Your task to perform on an android device: turn on showing notifications on the lock screen Image 0: 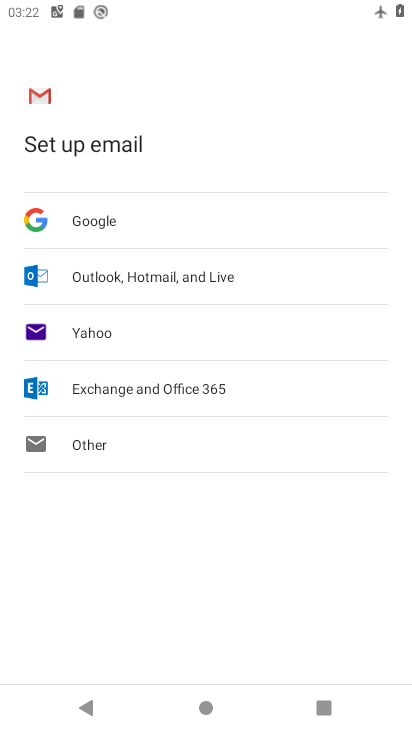
Step 0: press home button
Your task to perform on an android device: turn on showing notifications on the lock screen Image 1: 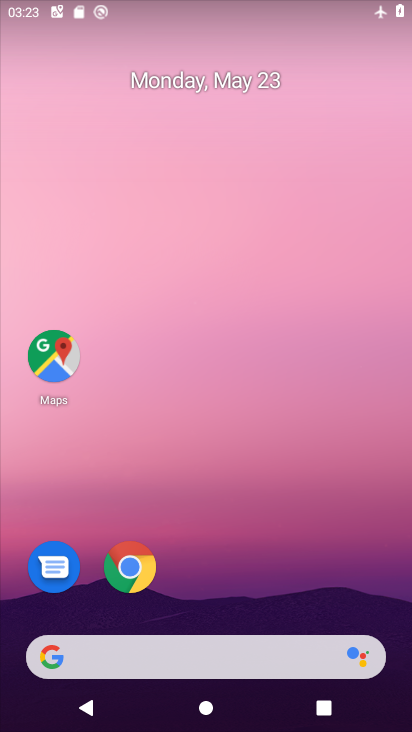
Step 1: drag from (11, 641) to (117, 433)
Your task to perform on an android device: turn on showing notifications on the lock screen Image 2: 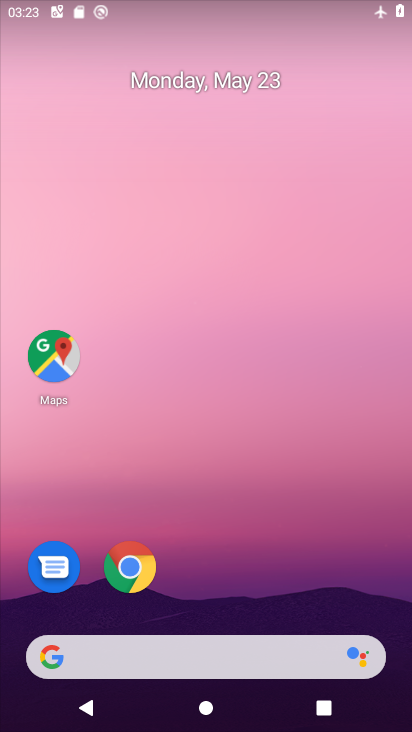
Step 2: drag from (16, 532) to (138, 327)
Your task to perform on an android device: turn on showing notifications on the lock screen Image 3: 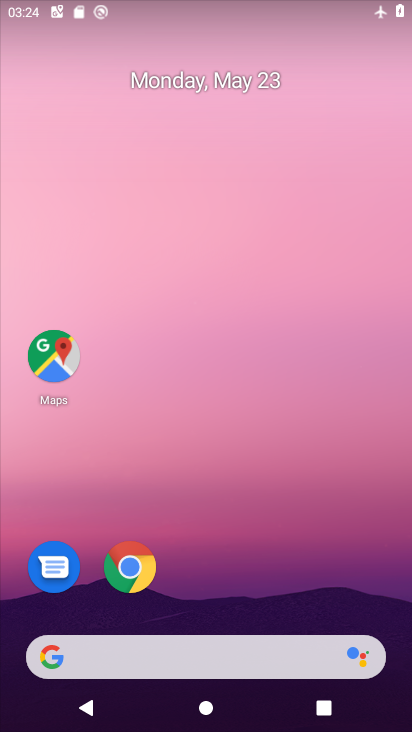
Step 3: drag from (193, 186) to (277, 85)
Your task to perform on an android device: turn on showing notifications on the lock screen Image 4: 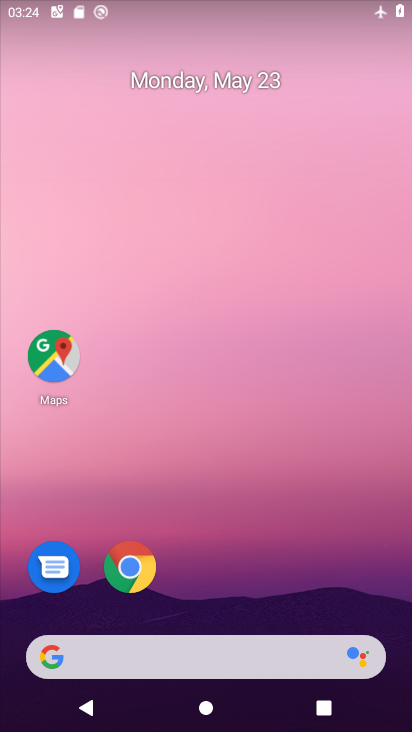
Step 4: drag from (13, 520) to (235, 0)
Your task to perform on an android device: turn on showing notifications on the lock screen Image 5: 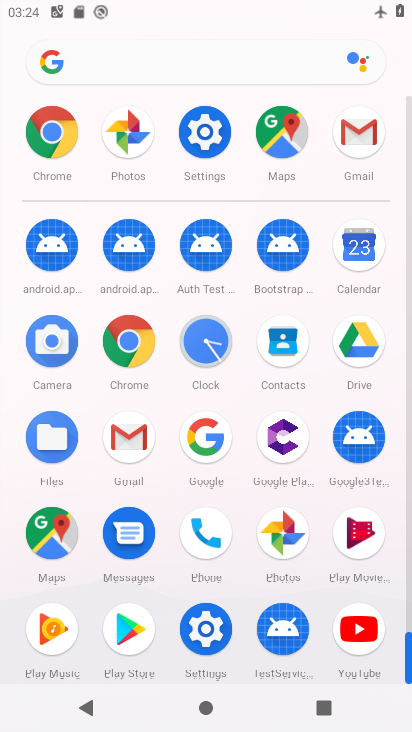
Step 5: click (200, 638)
Your task to perform on an android device: turn on showing notifications on the lock screen Image 6: 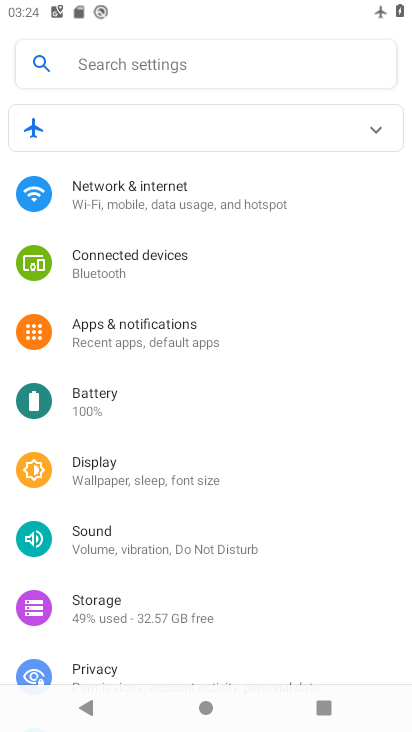
Step 6: click (144, 307)
Your task to perform on an android device: turn on showing notifications on the lock screen Image 7: 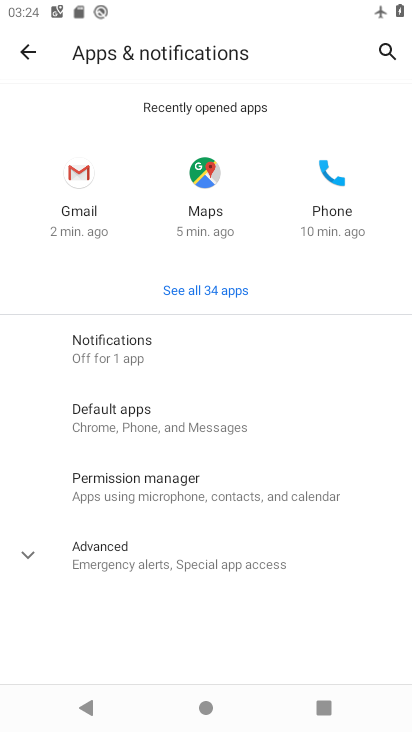
Step 7: click (160, 360)
Your task to perform on an android device: turn on showing notifications on the lock screen Image 8: 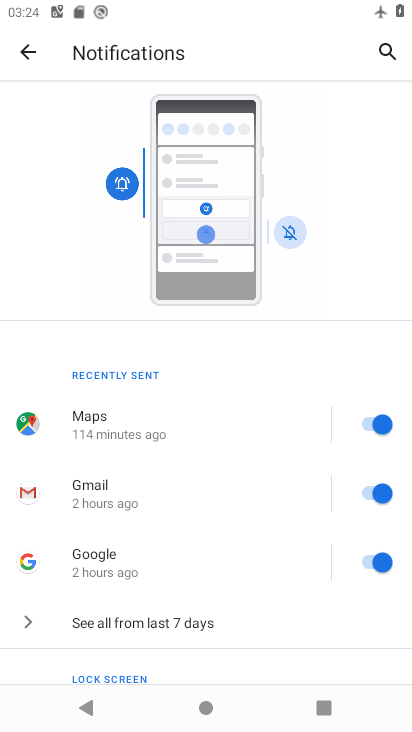
Step 8: drag from (97, 653) to (356, 129)
Your task to perform on an android device: turn on showing notifications on the lock screen Image 9: 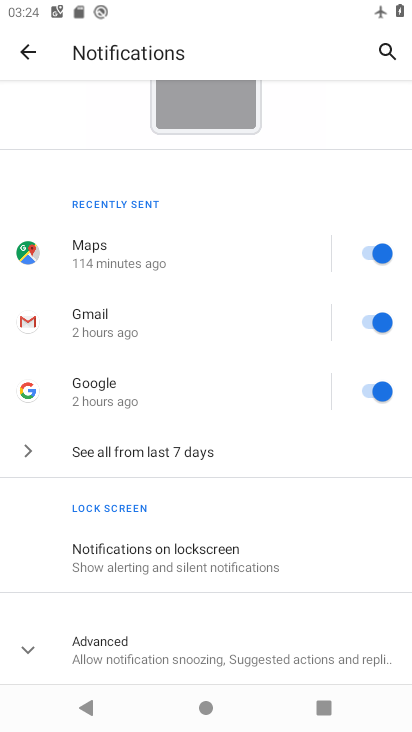
Step 9: click (107, 561)
Your task to perform on an android device: turn on showing notifications on the lock screen Image 10: 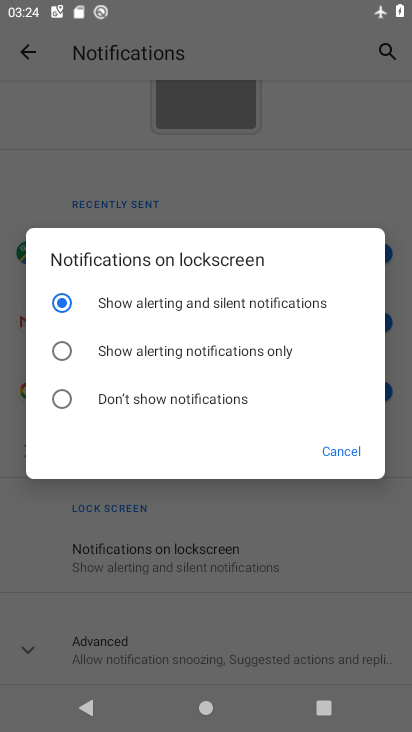
Step 10: task complete